Your task to perform on an android device: star an email in the gmail app Image 0: 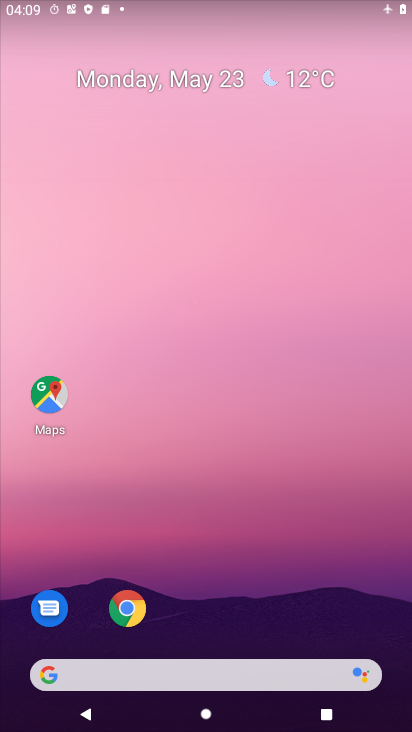
Step 0: drag from (318, 545) to (196, 33)
Your task to perform on an android device: star an email in the gmail app Image 1: 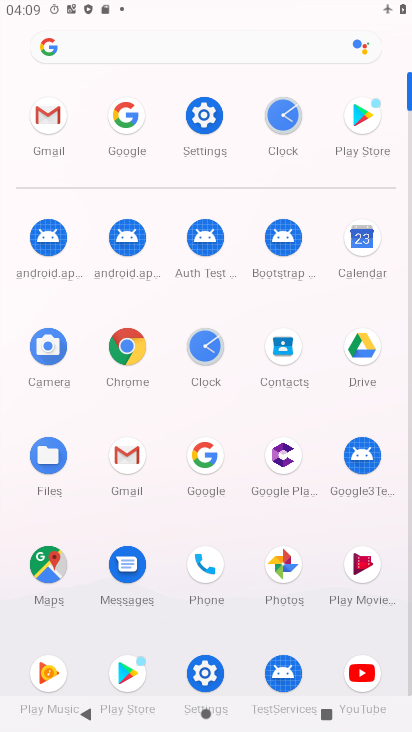
Step 1: click (124, 455)
Your task to perform on an android device: star an email in the gmail app Image 2: 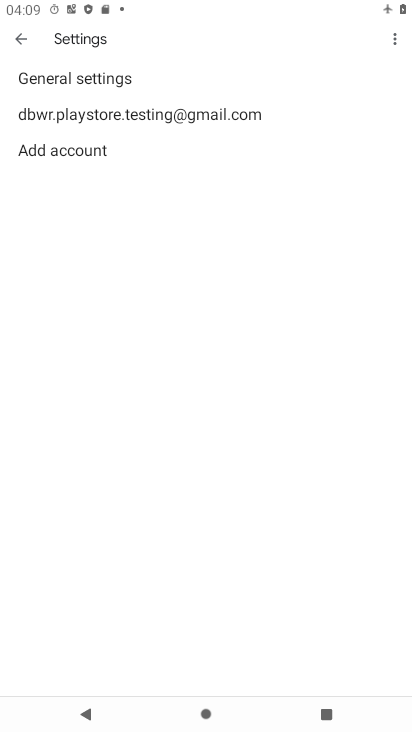
Step 2: click (103, 119)
Your task to perform on an android device: star an email in the gmail app Image 3: 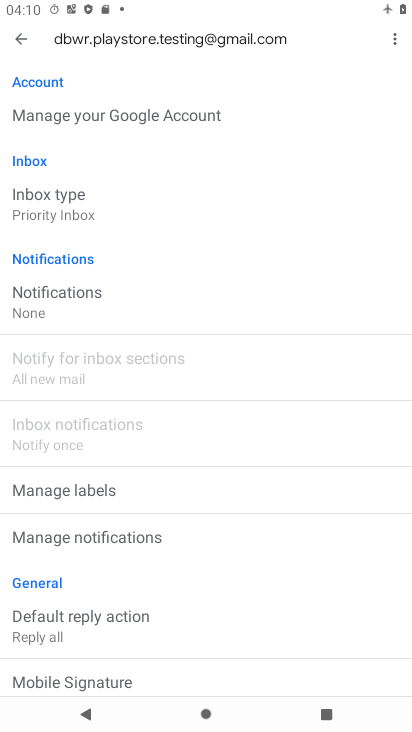
Step 3: press home button
Your task to perform on an android device: star an email in the gmail app Image 4: 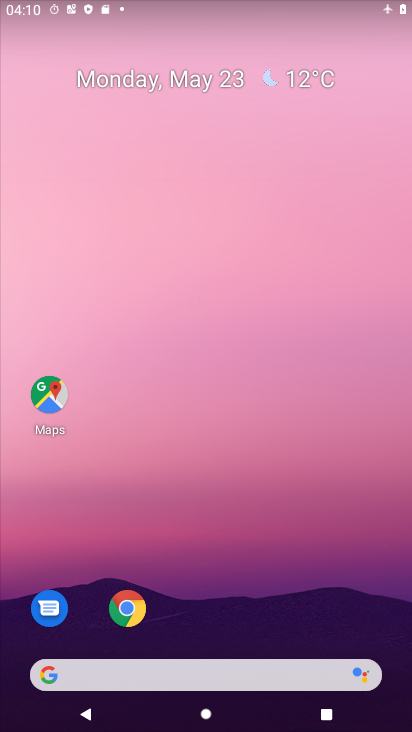
Step 4: drag from (318, 580) to (125, 15)
Your task to perform on an android device: star an email in the gmail app Image 5: 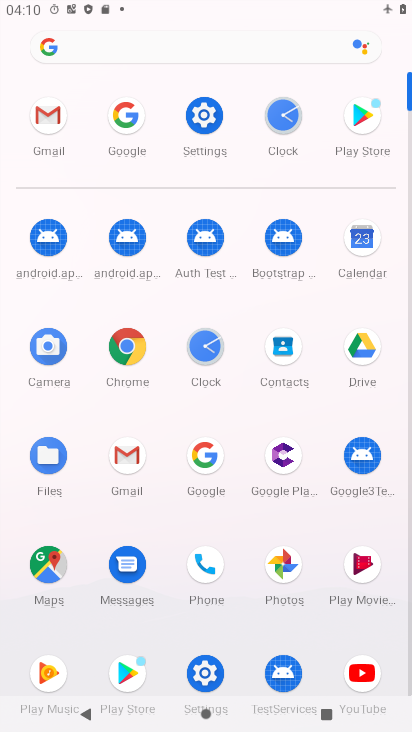
Step 5: click (126, 459)
Your task to perform on an android device: star an email in the gmail app Image 6: 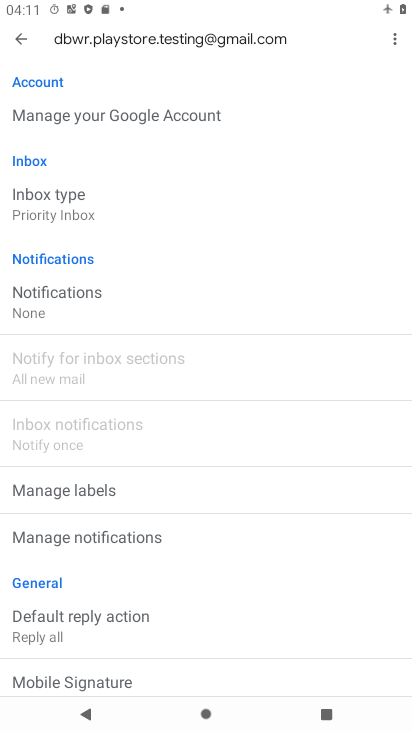
Step 6: click (12, 36)
Your task to perform on an android device: star an email in the gmail app Image 7: 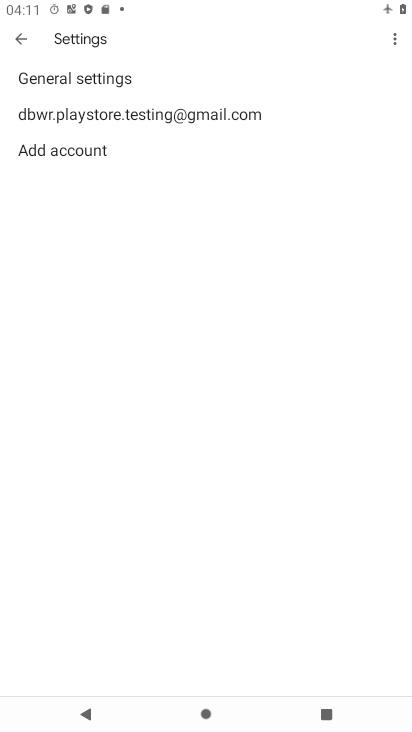
Step 7: click (19, 33)
Your task to perform on an android device: star an email in the gmail app Image 8: 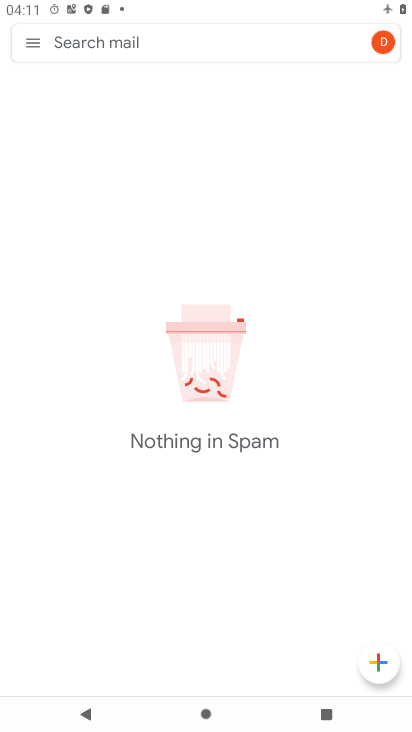
Step 8: click (37, 46)
Your task to perform on an android device: star an email in the gmail app Image 9: 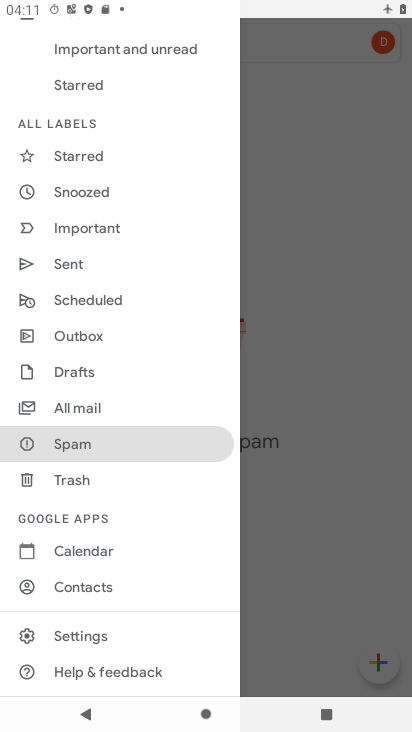
Step 9: click (111, 404)
Your task to perform on an android device: star an email in the gmail app Image 10: 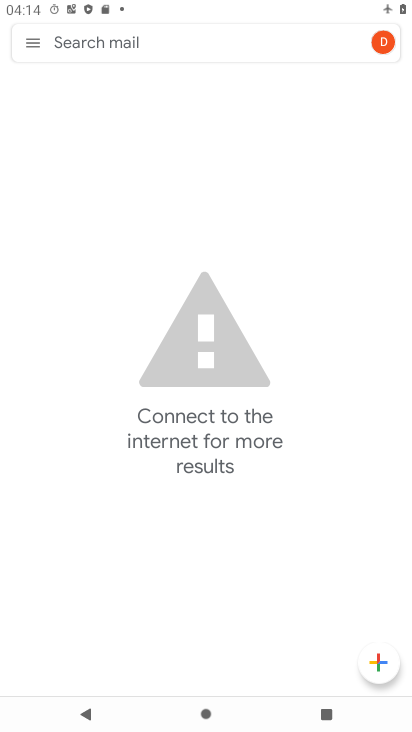
Step 10: task complete